Your task to perform on an android device: Go to privacy settings Image 0: 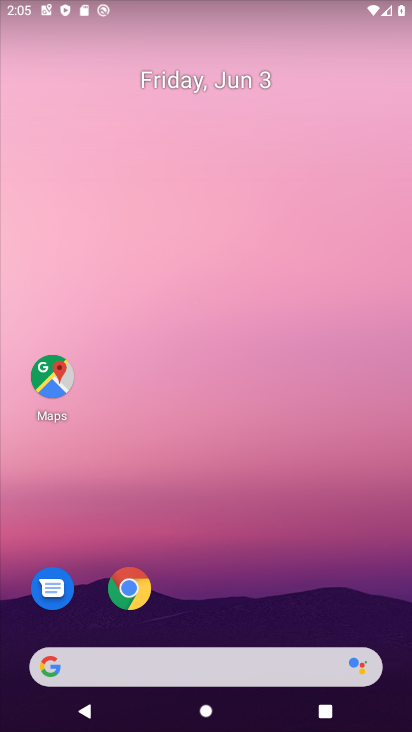
Step 0: drag from (227, 584) to (296, 113)
Your task to perform on an android device: Go to privacy settings Image 1: 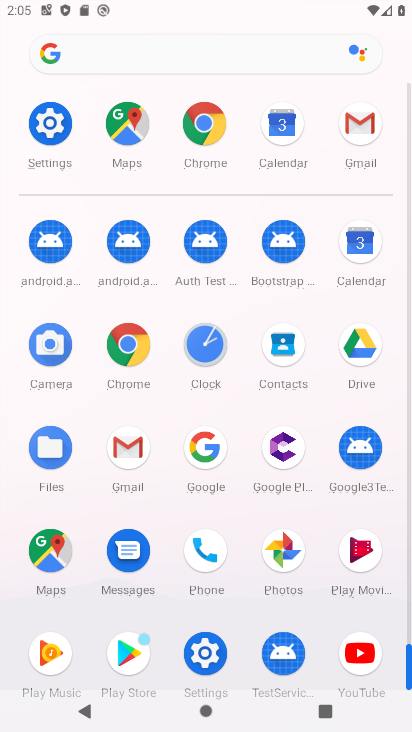
Step 1: click (206, 662)
Your task to perform on an android device: Go to privacy settings Image 2: 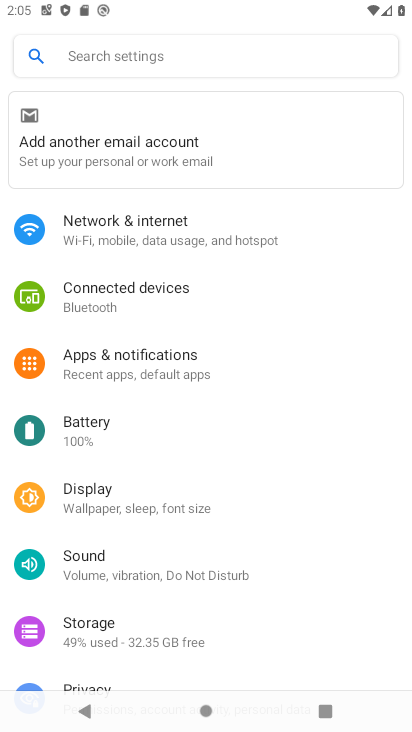
Step 2: drag from (154, 586) to (227, 167)
Your task to perform on an android device: Go to privacy settings Image 3: 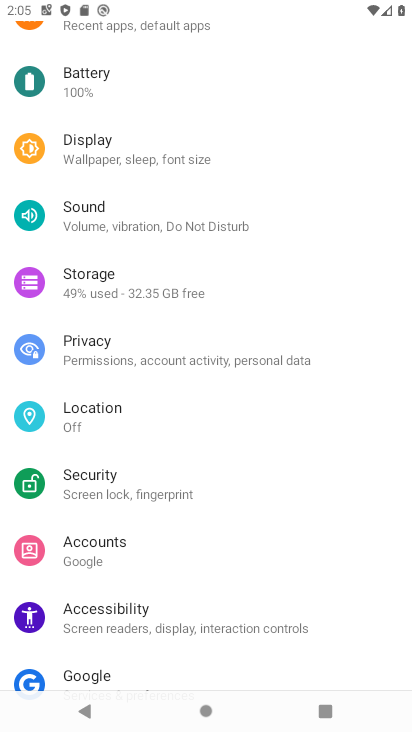
Step 3: click (174, 338)
Your task to perform on an android device: Go to privacy settings Image 4: 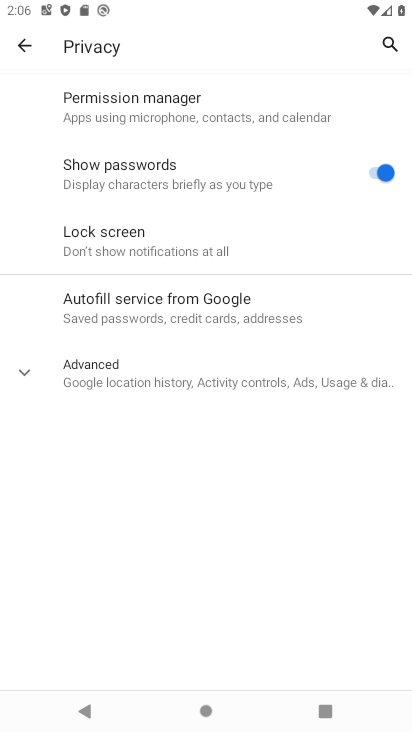
Step 4: task complete